Your task to perform on an android device: turn notification dots on Image 0: 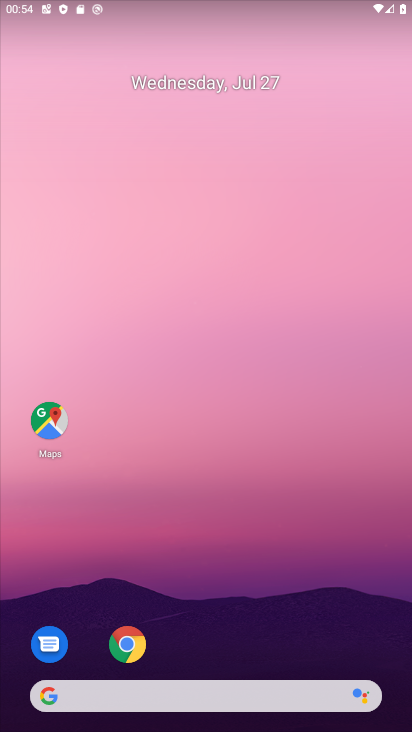
Step 0: drag from (306, 701) to (268, 208)
Your task to perform on an android device: turn notification dots on Image 1: 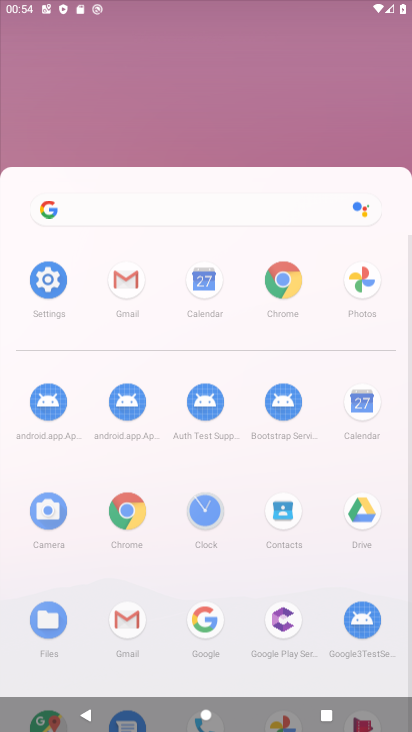
Step 1: drag from (296, 613) to (257, 125)
Your task to perform on an android device: turn notification dots on Image 2: 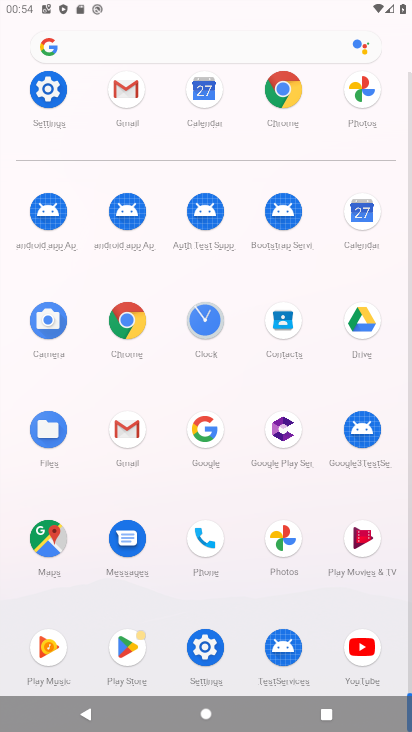
Step 2: drag from (211, 474) to (177, 157)
Your task to perform on an android device: turn notification dots on Image 3: 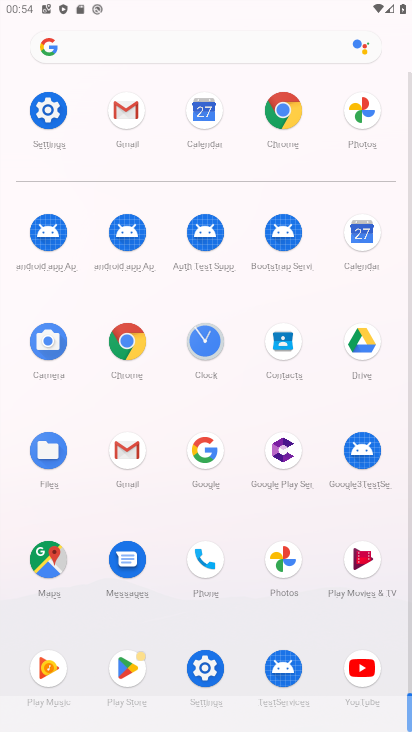
Step 3: click (47, 121)
Your task to perform on an android device: turn notification dots on Image 4: 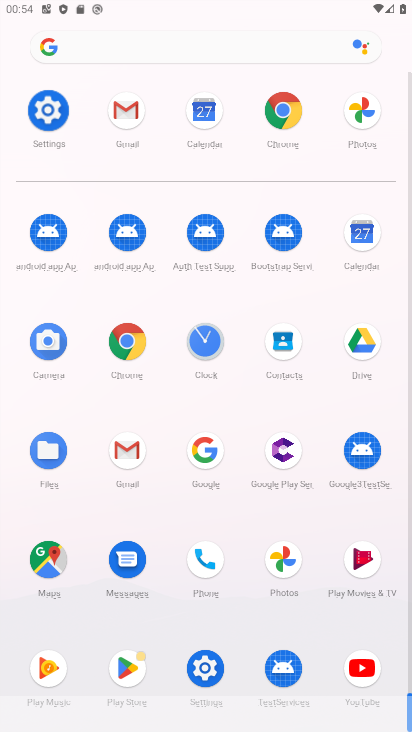
Step 4: click (51, 120)
Your task to perform on an android device: turn notification dots on Image 5: 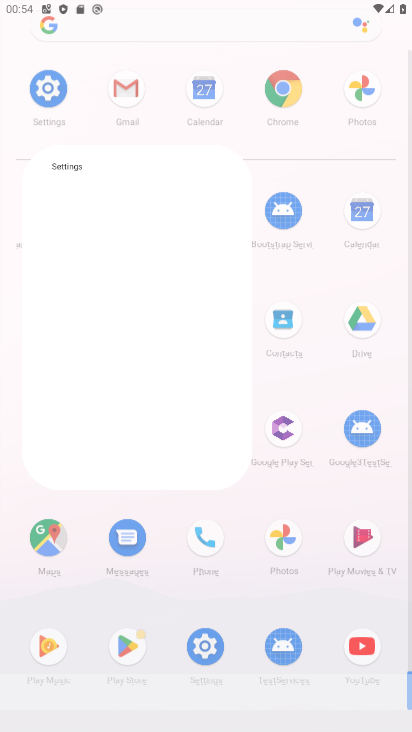
Step 5: click (51, 120)
Your task to perform on an android device: turn notification dots on Image 6: 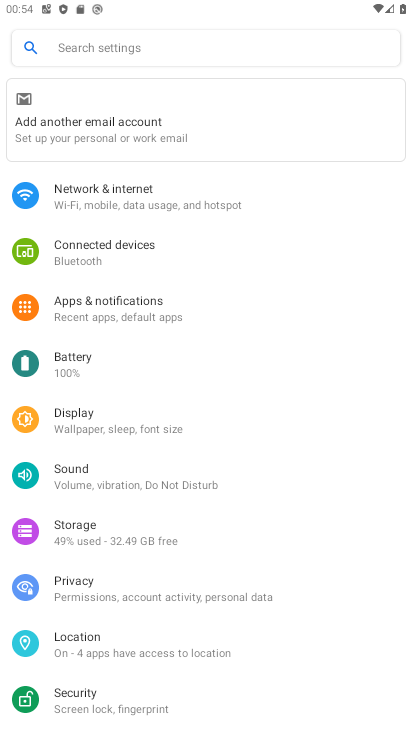
Step 6: click (81, 248)
Your task to perform on an android device: turn notification dots on Image 7: 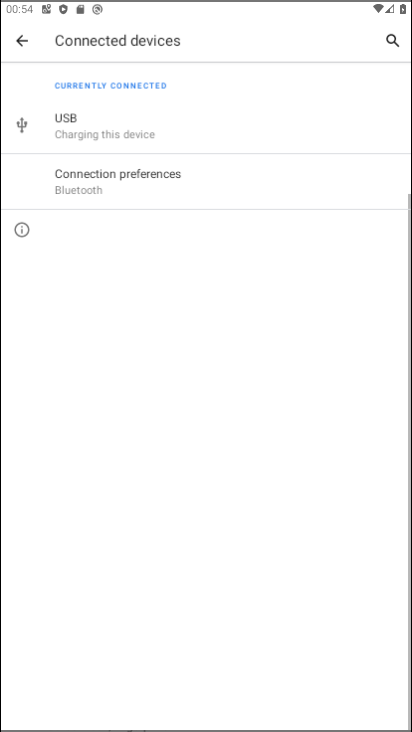
Step 7: click (93, 313)
Your task to perform on an android device: turn notification dots on Image 8: 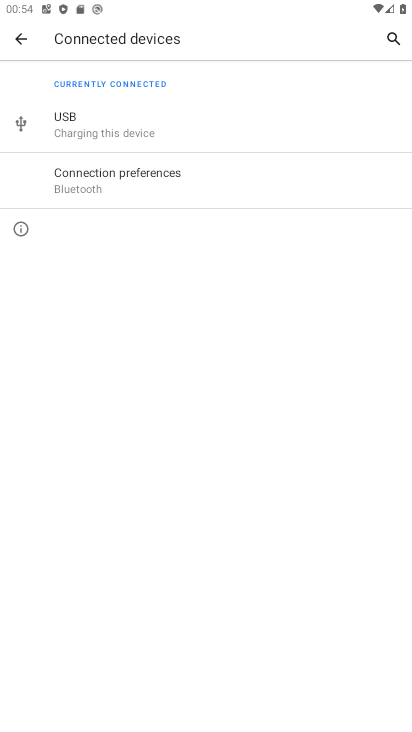
Step 8: click (18, 32)
Your task to perform on an android device: turn notification dots on Image 9: 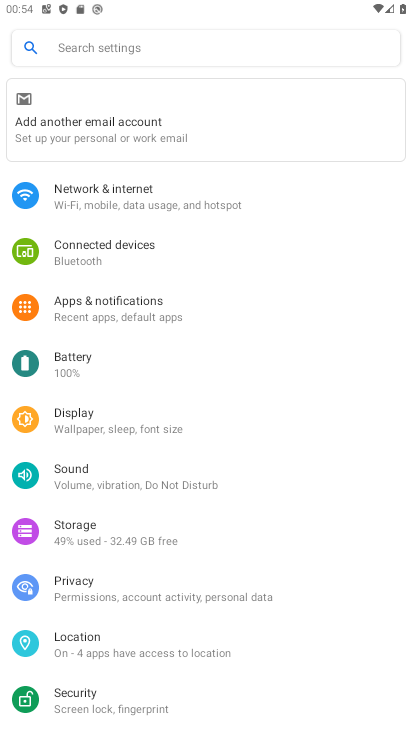
Step 9: click (111, 306)
Your task to perform on an android device: turn notification dots on Image 10: 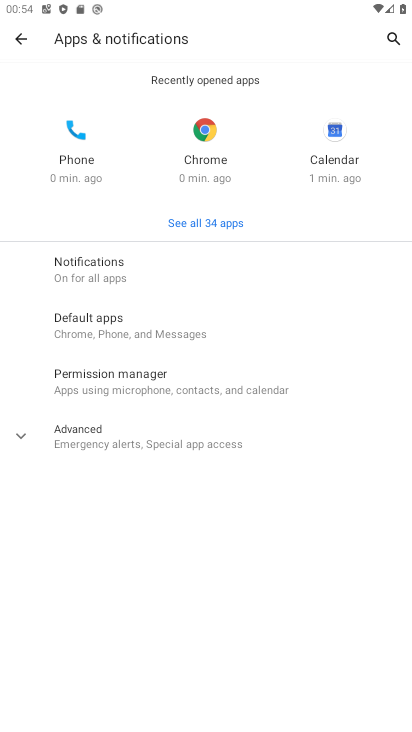
Step 10: click (89, 275)
Your task to perform on an android device: turn notification dots on Image 11: 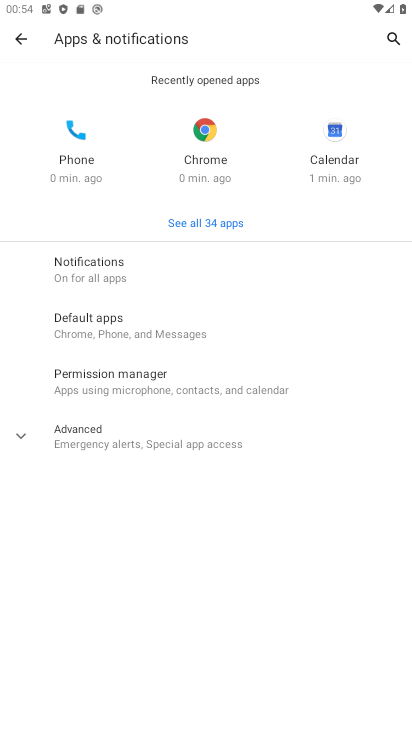
Step 11: click (90, 273)
Your task to perform on an android device: turn notification dots on Image 12: 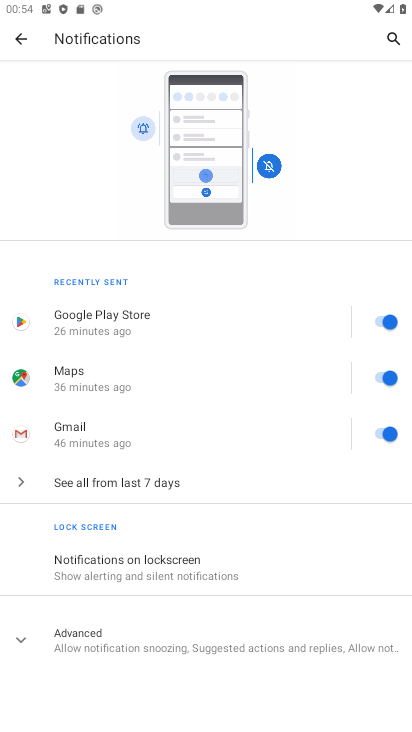
Step 12: drag from (297, 103) to (316, 466)
Your task to perform on an android device: turn notification dots on Image 13: 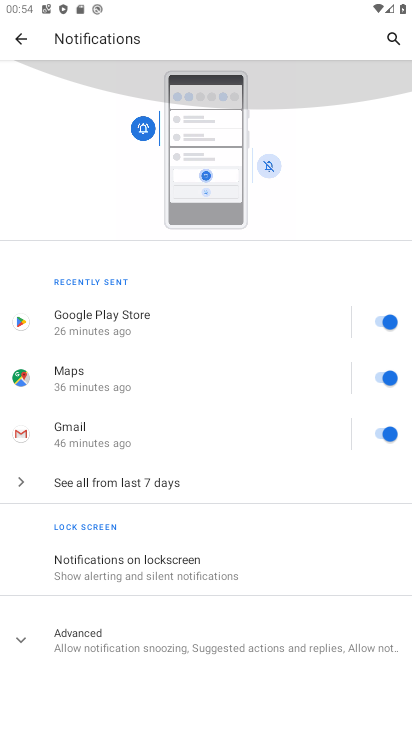
Step 13: drag from (404, 238) to (388, 621)
Your task to perform on an android device: turn notification dots on Image 14: 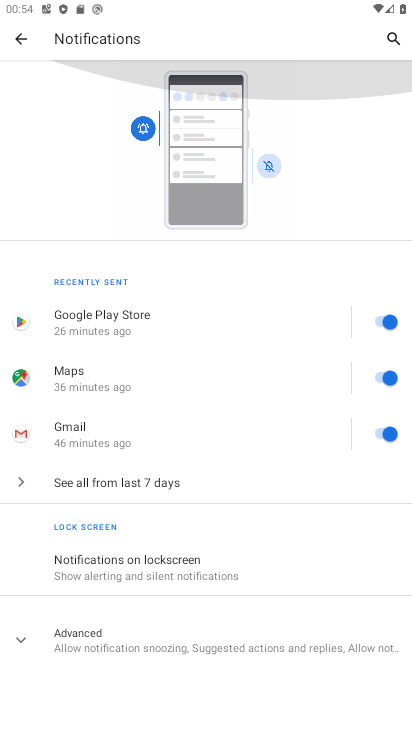
Step 14: drag from (319, 255) to (307, 639)
Your task to perform on an android device: turn notification dots on Image 15: 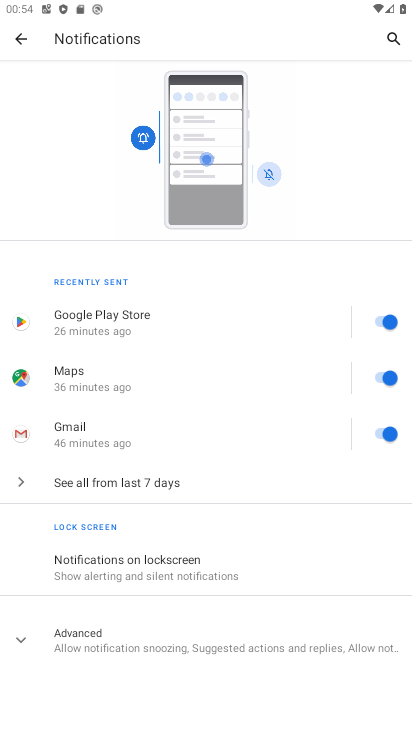
Step 15: click (398, 318)
Your task to perform on an android device: turn notification dots on Image 16: 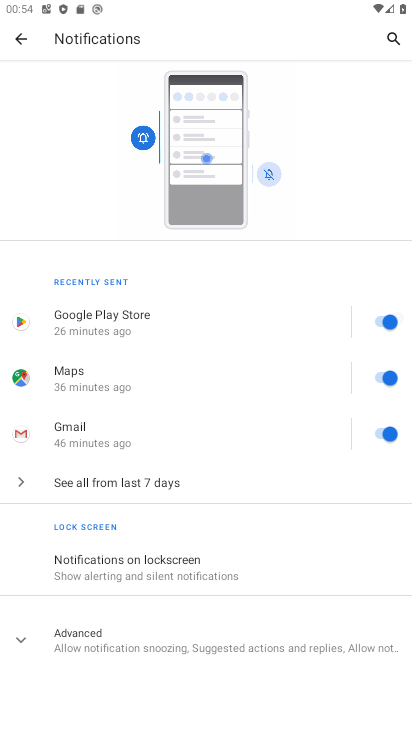
Step 16: click (390, 315)
Your task to perform on an android device: turn notification dots on Image 17: 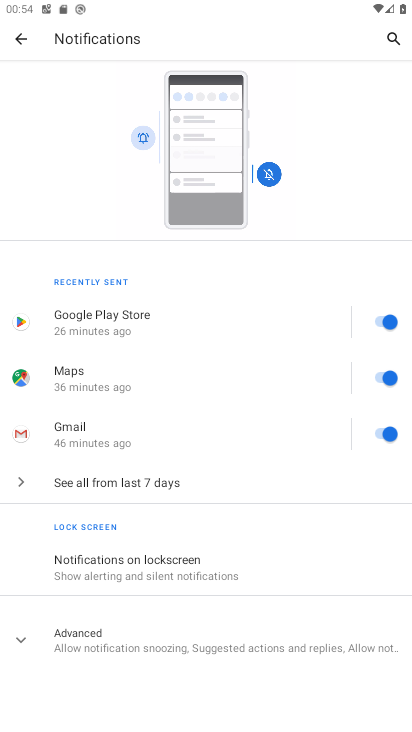
Step 17: click (127, 629)
Your task to perform on an android device: turn notification dots on Image 18: 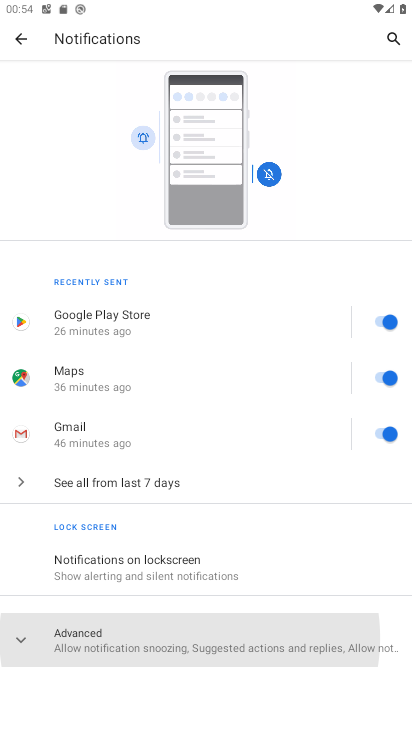
Step 18: click (124, 630)
Your task to perform on an android device: turn notification dots on Image 19: 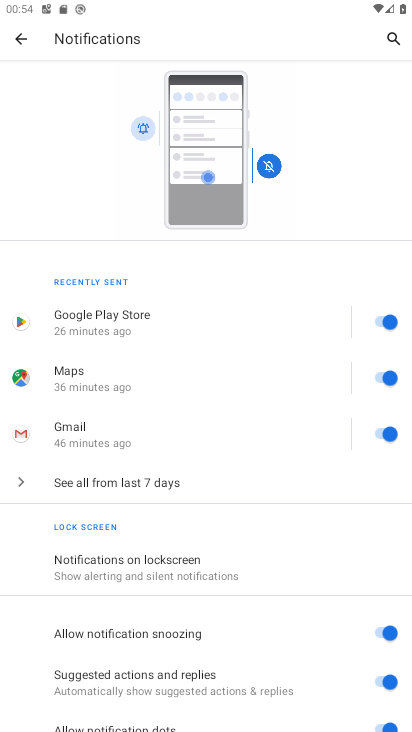
Step 19: task complete